Your task to perform on an android device: Open Google Maps Image 0: 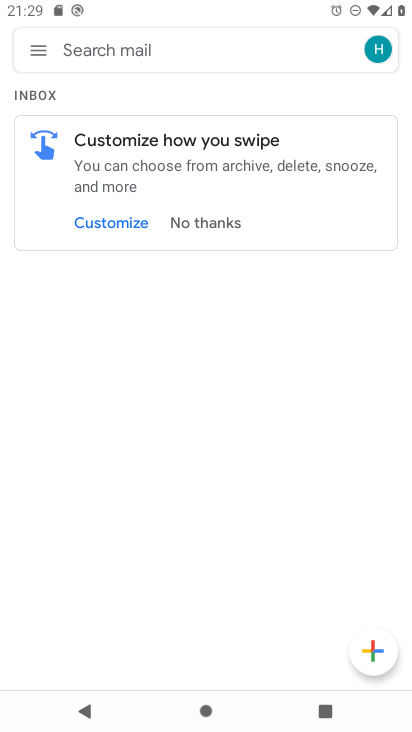
Step 0: press home button
Your task to perform on an android device: Open Google Maps Image 1: 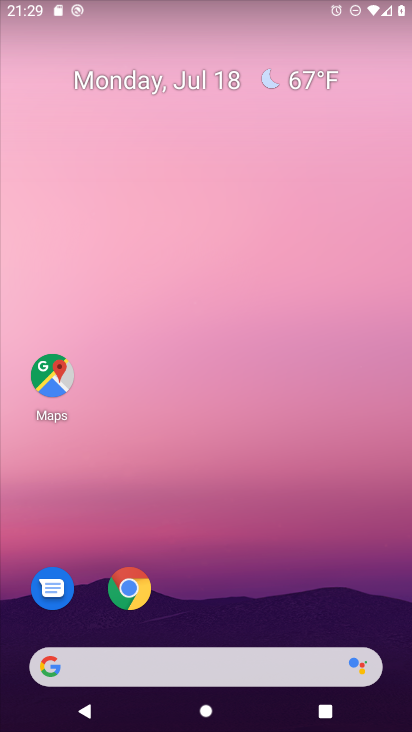
Step 1: click (53, 375)
Your task to perform on an android device: Open Google Maps Image 2: 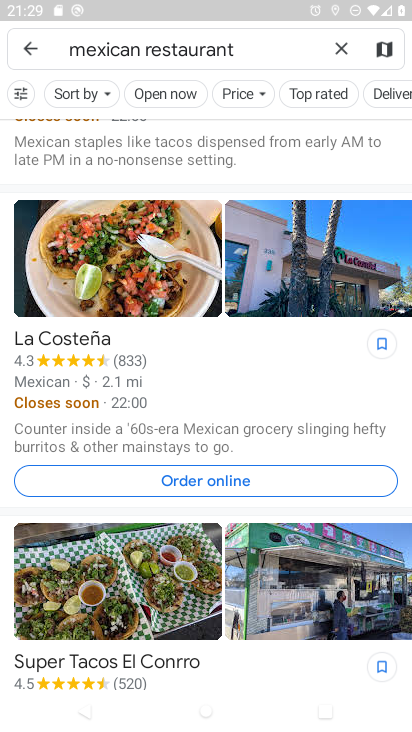
Step 2: click (338, 44)
Your task to perform on an android device: Open Google Maps Image 3: 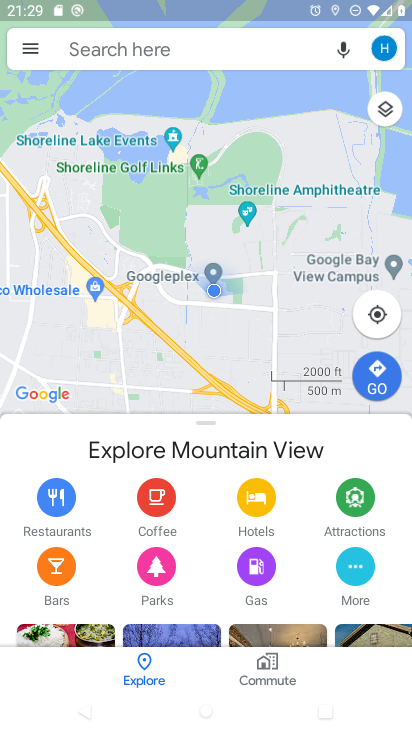
Step 3: task complete